Your task to perform on an android device: Go to Maps Image 0: 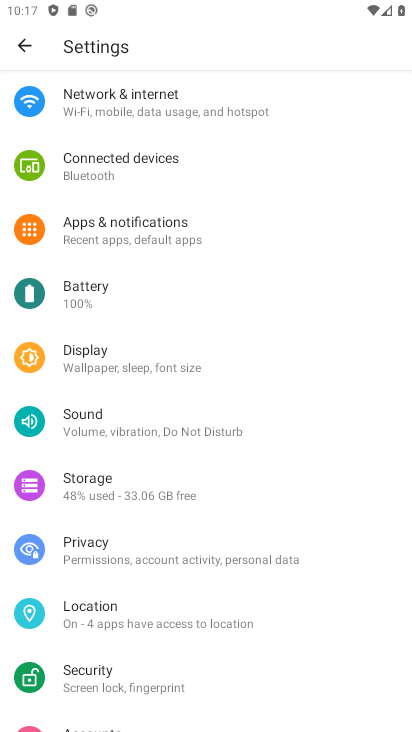
Step 0: press home button
Your task to perform on an android device: Go to Maps Image 1: 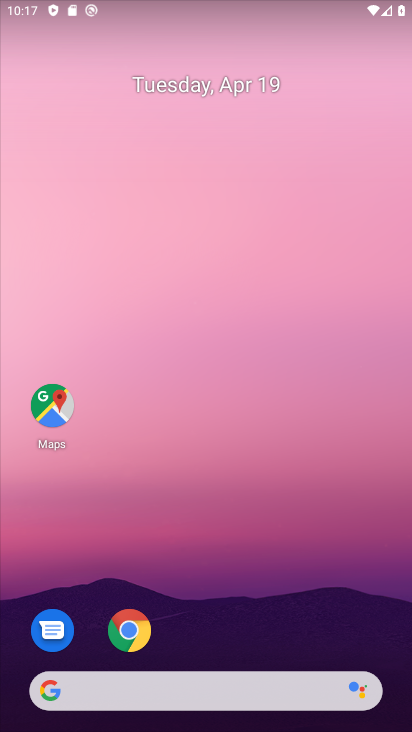
Step 1: drag from (277, 547) to (320, 220)
Your task to perform on an android device: Go to Maps Image 2: 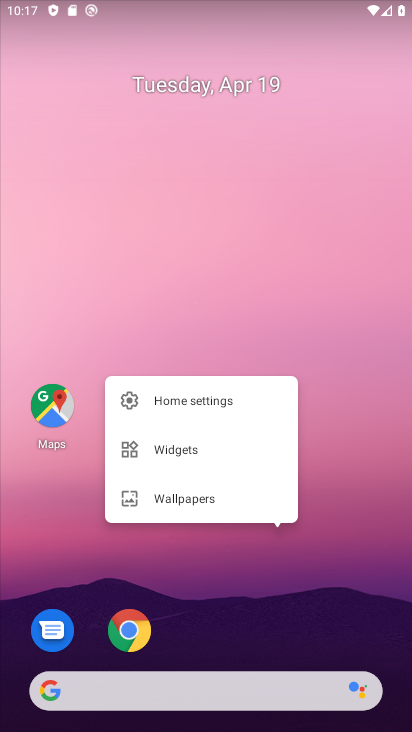
Step 2: click (260, 610)
Your task to perform on an android device: Go to Maps Image 3: 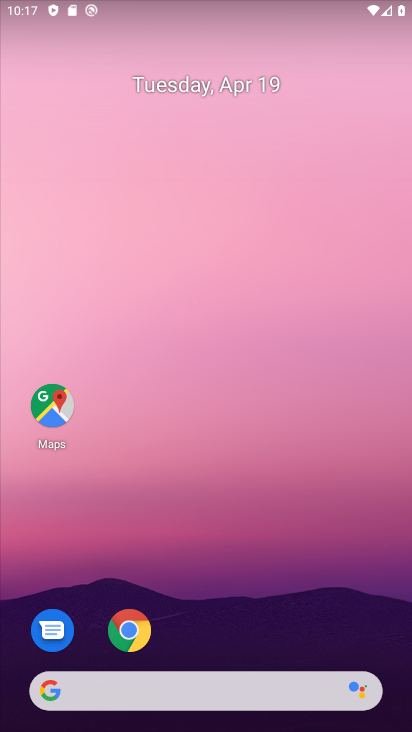
Step 3: drag from (242, 341) to (247, 149)
Your task to perform on an android device: Go to Maps Image 4: 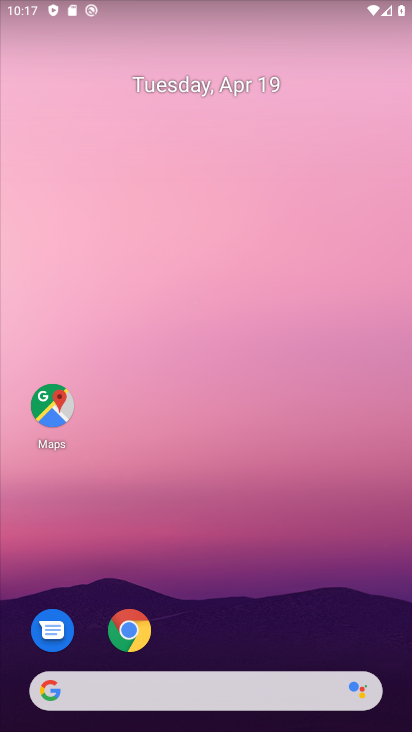
Step 4: drag from (191, 644) to (284, 170)
Your task to perform on an android device: Go to Maps Image 5: 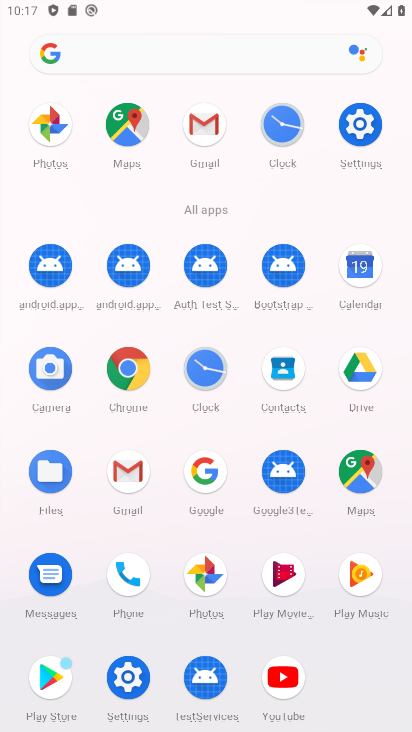
Step 5: click (359, 466)
Your task to perform on an android device: Go to Maps Image 6: 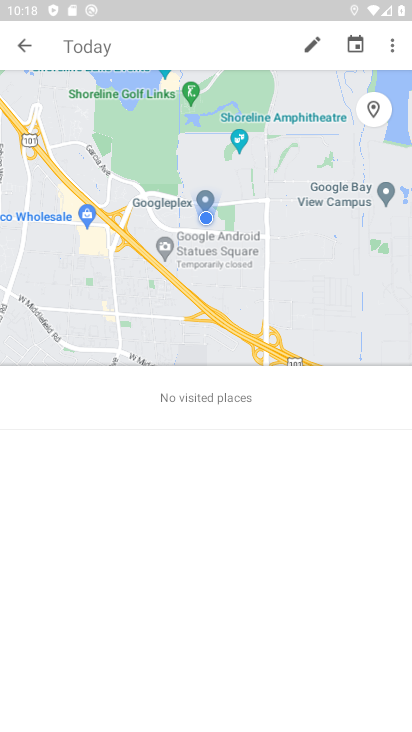
Step 6: click (34, 42)
Your task to perform on an android device: Go to Maps Image 7: 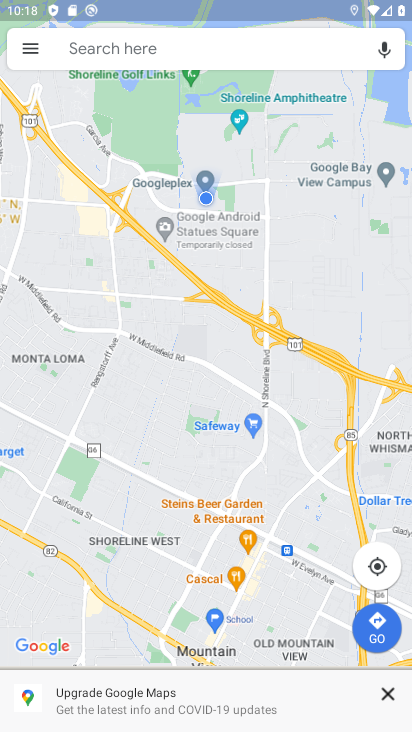
Step 7: task complete